Your task to perform on an android device: Go to Maps Image 0: 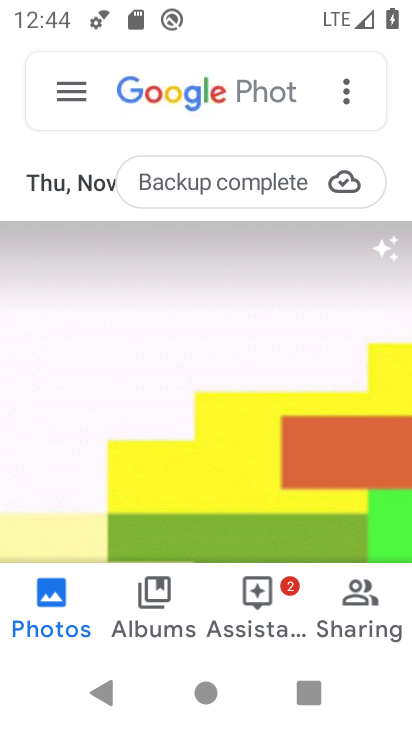
Step 0: press home button
Your task to perform on an android device: Go to Maps Image 1: 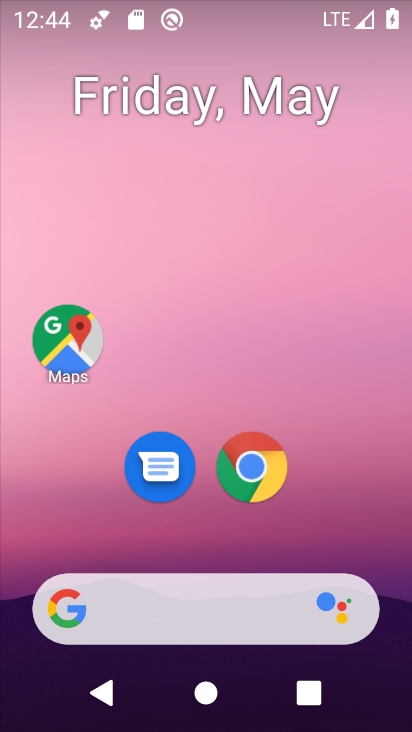
Step 1: drag from (346, 451) to (376, 57)
Your task to perform on an android device: Go to Maps Image 2: 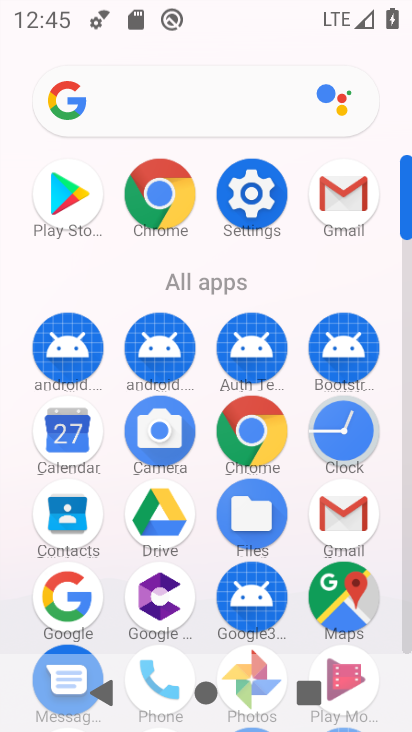
Step 2: click (357, 580)
Your task to perform on an android device: Go to Maps Image 3: 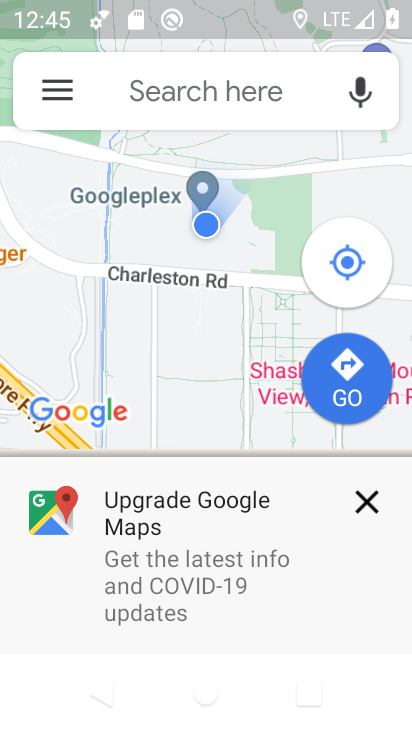
Step 3: task complete